Your task to perform on an android device: Open Android settings Image 0: 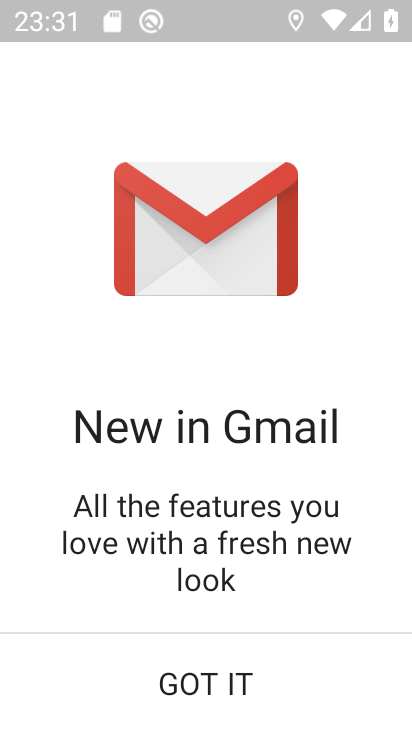
Step 0: click (211, 676)
Your task to perform on an android device: Open Android settings Image 1: 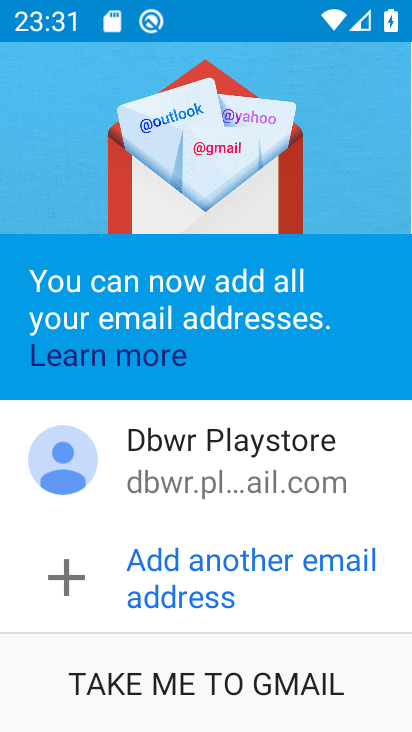
Step 1: press home button
Your task to perform on an android device: Open Android settings Image 2: 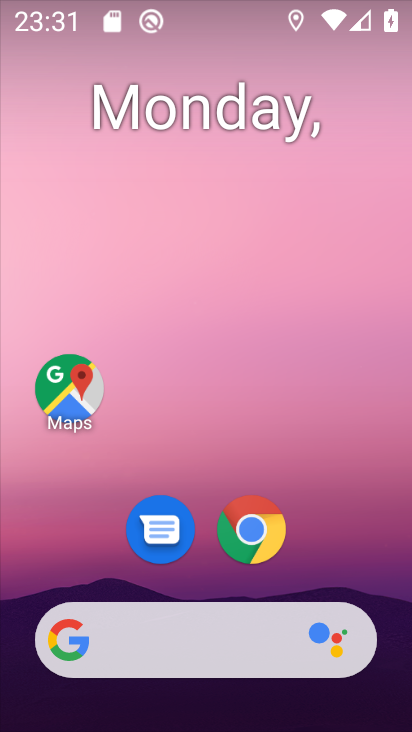
Step 2: drag from (333, 564) to (359, 129)
Your task to perform on an android device: Open Android settings Image 3: 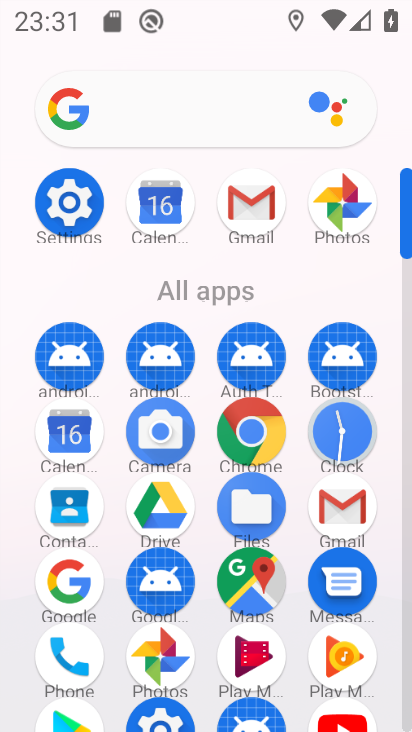
Step 3: click (82, 193)
Your task to perform on an android device: Open Android settings Image 4: 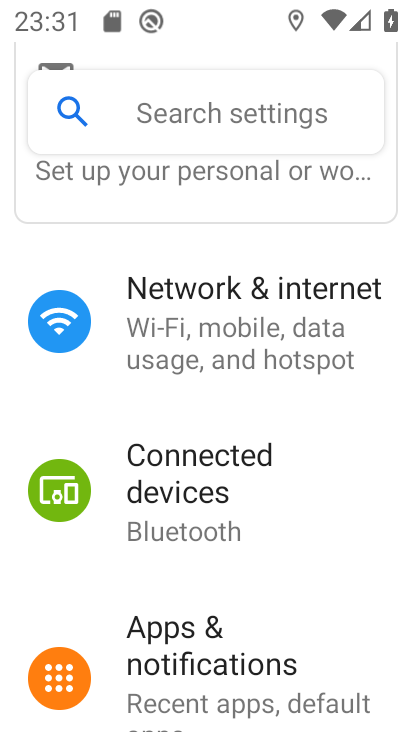
Step 4: drag from (315, 613) to (274, 216)
Your task to perform on an android device: Open Android settings Image 5: 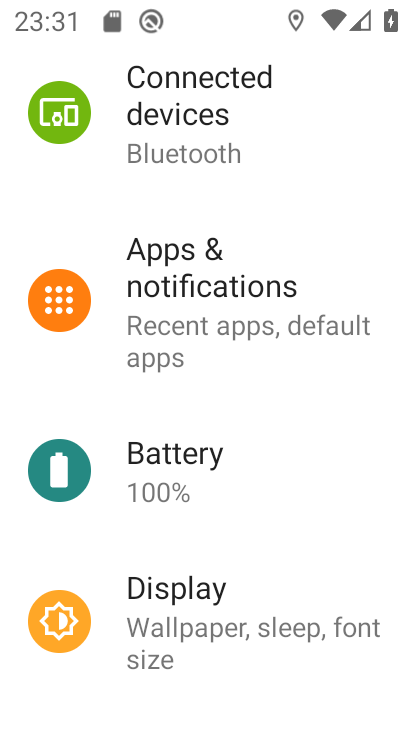
Step 5: drag from (302, 567) to (305, 117)
Your task to perform on an android device: Open Android settings Image 6: 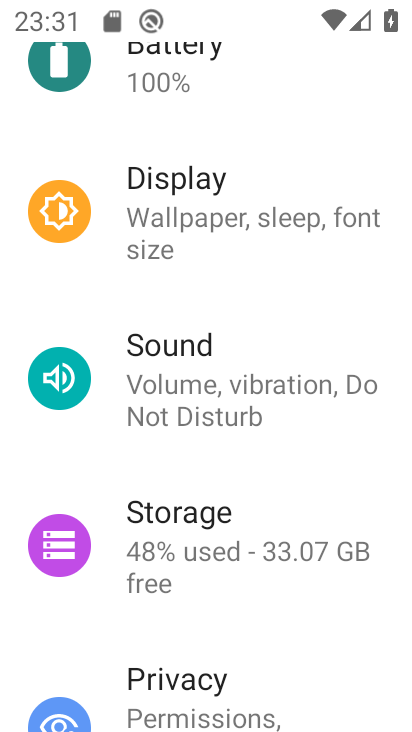
Step 6: drag from (300, 683) to (356, 121)
Your task to perform on an android device: Open Android settings Image 7: 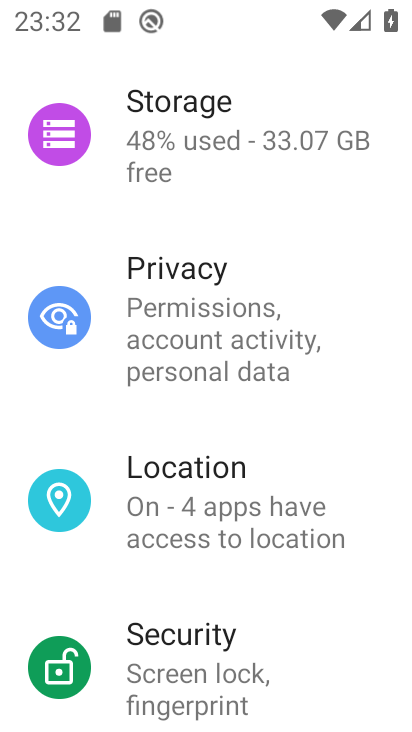
Step 7: drag from (310, 614) to (275, 121)
Your task to perform on an android device: Open Android settings Image 8: 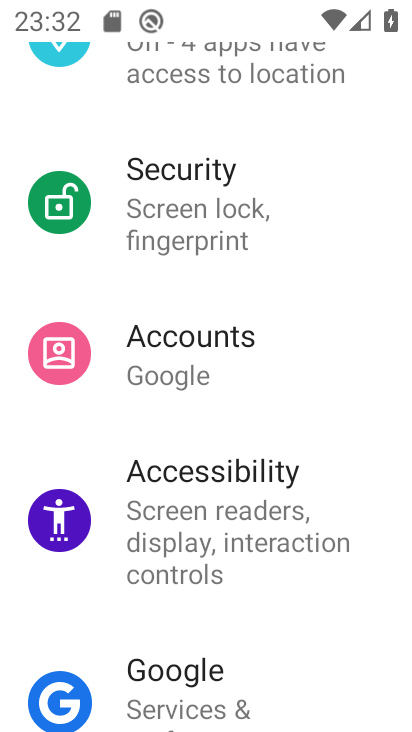
Step 8: drag from (307, 651) to (310, 308)
Your task to perform on an android device: Open Android settings Image 9: 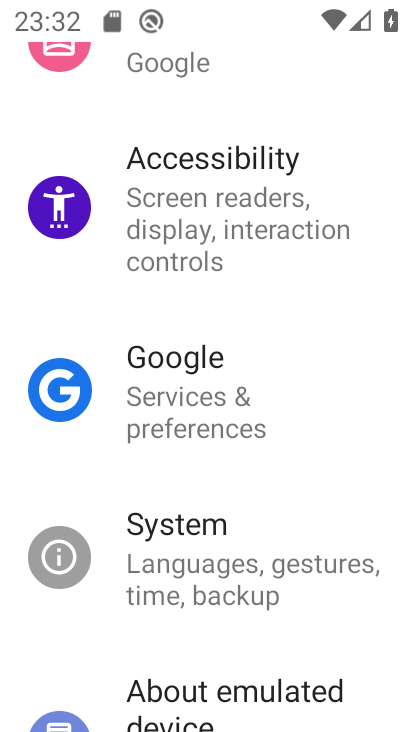
Step 9: click (277, 705)
Your task to perform on an android device: Open Android settings Image 10: 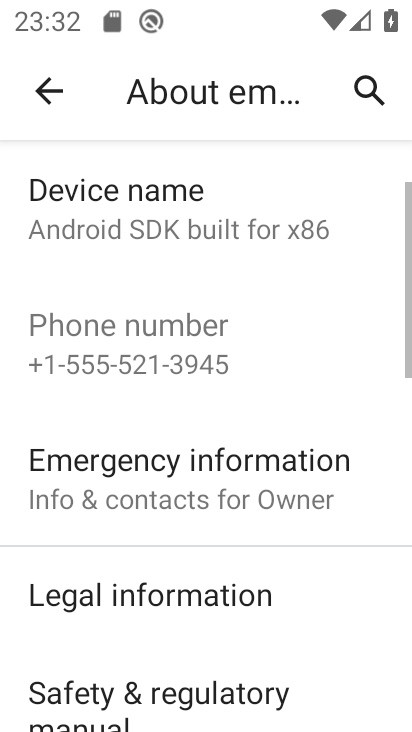
Step 10: drag from (338, 629) to (280, 275)
Your task to perform on an android device: Open Android settings Image 11: 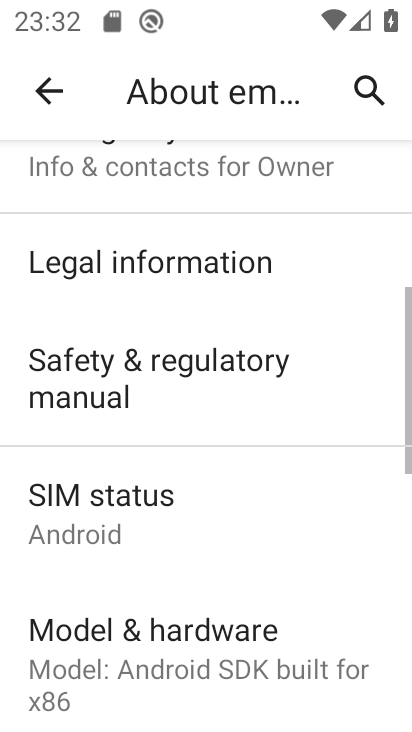
Step 11: drag from (317, 555) to (315, 238)
Your task to perform on an android device: Open Android settings Image 12: 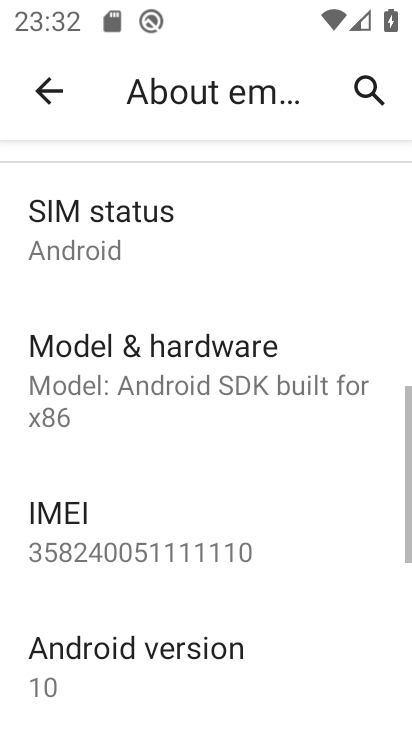
Step 12: click (209, 651)
Your task to perform on an android device: Open Android settings Image 13: 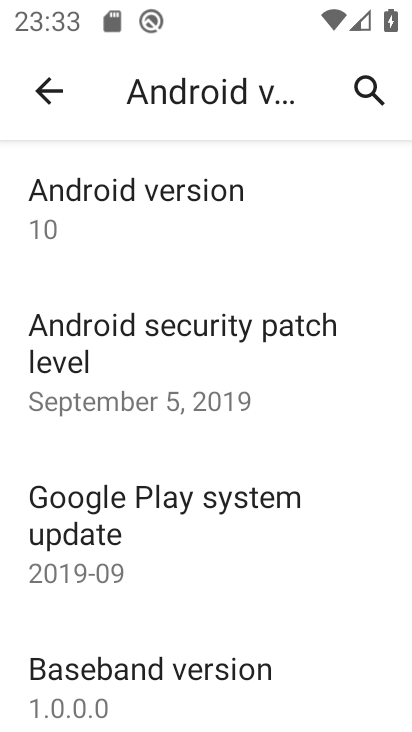
Step 13: task complete